Your task to perform on an android device: change alarm snooze length Image 0: 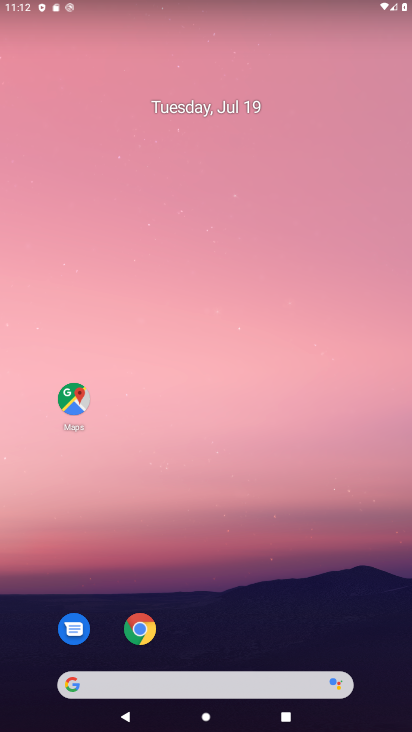
Step 0: drag from (255, 527) to (222, 151)
Your task to perform on an android device: change alarm snooze length Image 1: 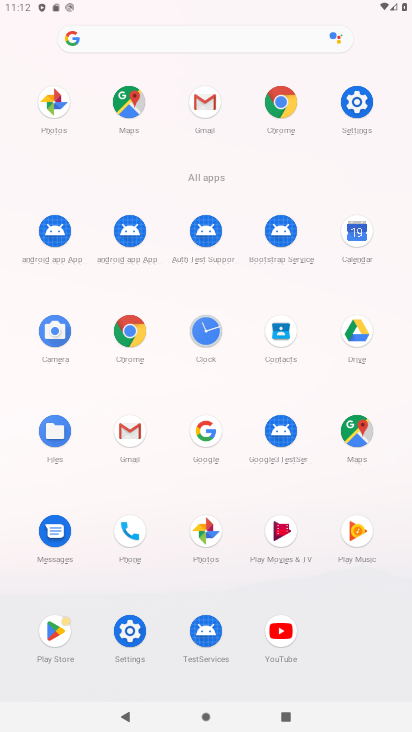
Step 1: click (355, 100)
Your task to perform on an android device: change alarm snooze length Image 2: 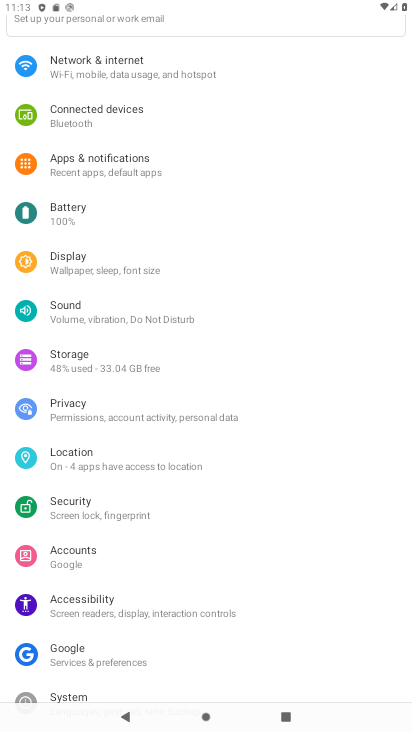
Step 2: press home button
Your task to perform on an android device: change alarm snooze length Image 3: 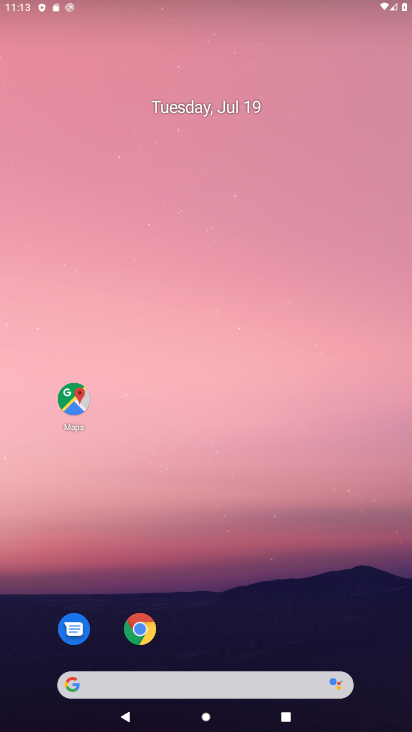
Step 3: drag from (338, 560) to (316, 89)
Your task to perform on an android device: change alarm snooze length Image 4: 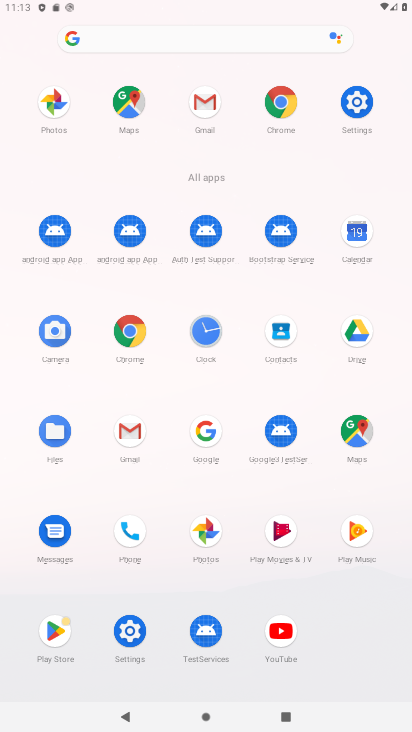
Step 4: click (200, 321)
Your task to perform on an android device: change alarm snooze length Image 5: 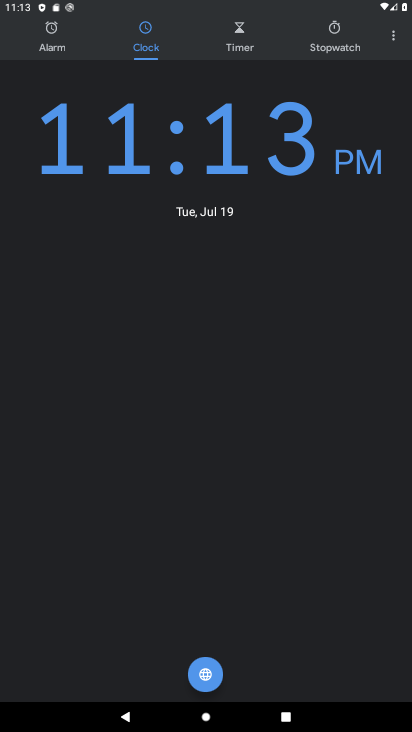
Step 5: click (393, 46)
Your task to perform on an android device: change alarm snooze length Image 6: 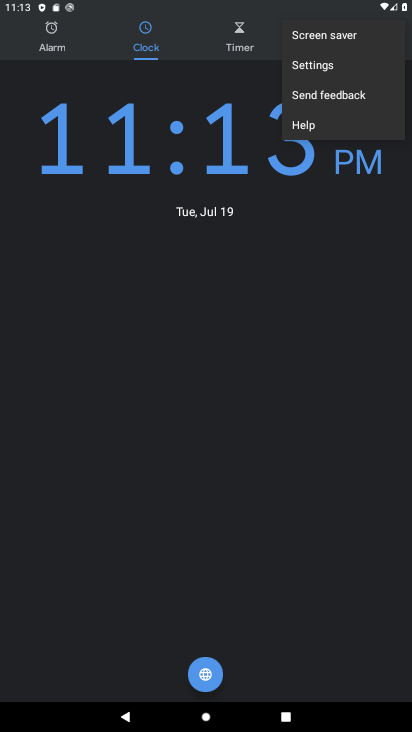
Step 6: click (347, 68)
Your task to perform on an android device: change alarm snooze length Image 7: 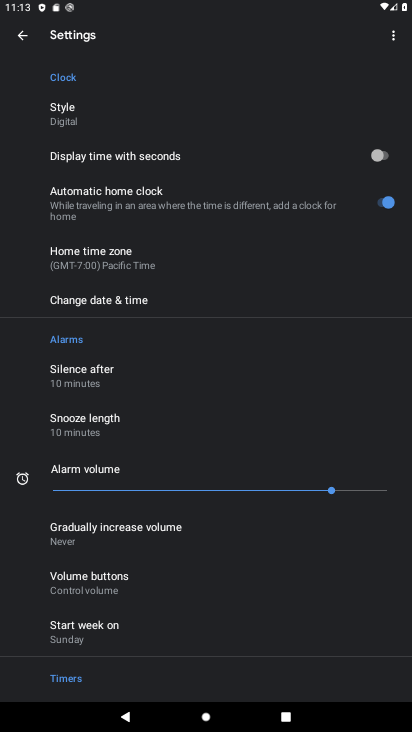
Step 7: drag from (268, 466) to (308, 147)
Your task to perform on an android device: change alarm snooze length Image 8: 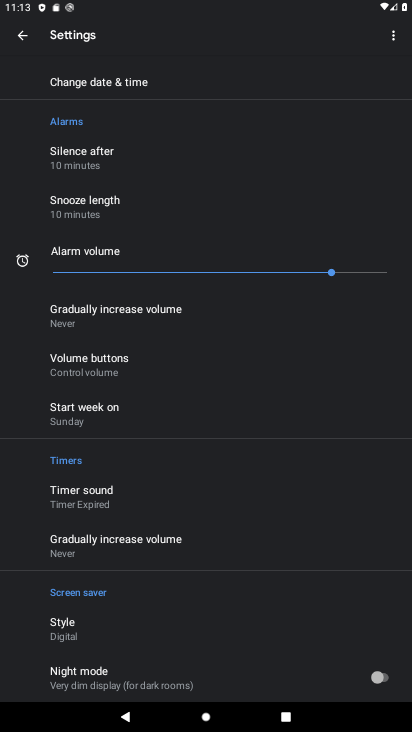
Step 8: drag from (218, 418) to (314, 172)
Your task to perform on an android device: change alarm snooze length Image 9: 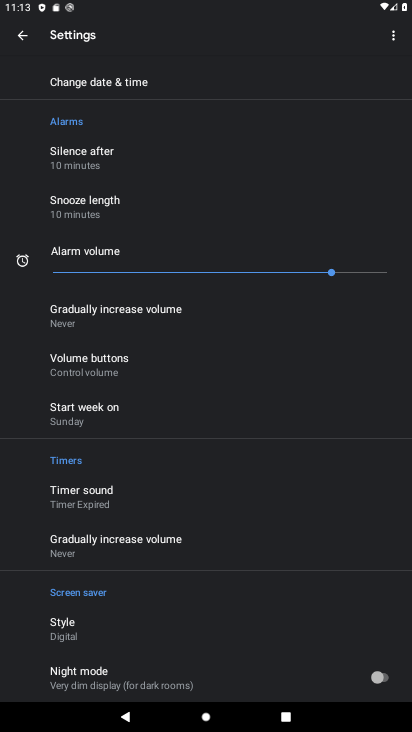
Step 9: drag from (242, 479) to (278, 299)
Your task to perform on an android device: change alarm snooze length Image 10: 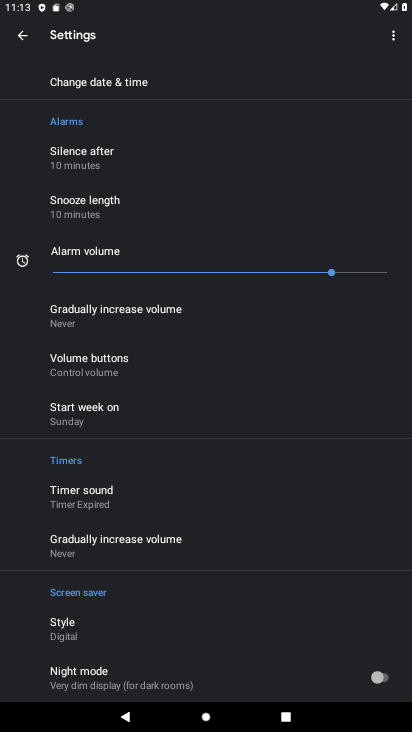
Step 10: drag from (263, 581) to (245, 234)
Your task to perform on an android device: change alarm snooze length Image 11: 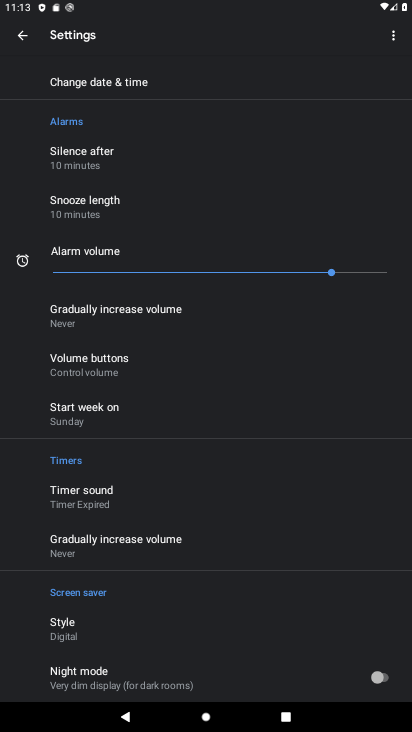
Step 11: drag from (232, 145) to (212, 620)
Your task to perform on an android device: change alarm snooze length Image 12: 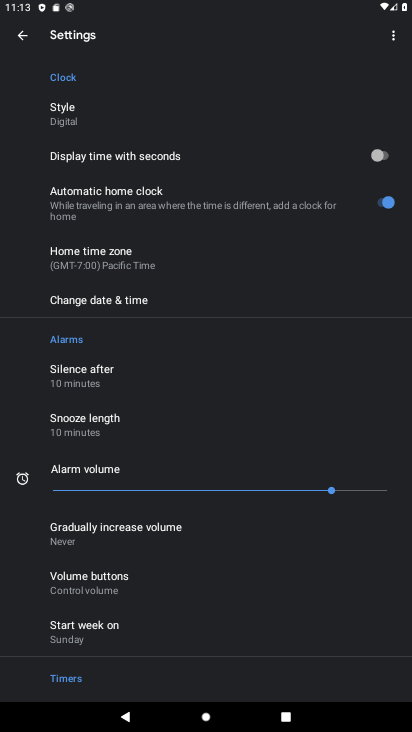
Step 12: drag from (211, 582) to (213, 392)
Your task to perform on an android device: change alarm snooze length Image 13: 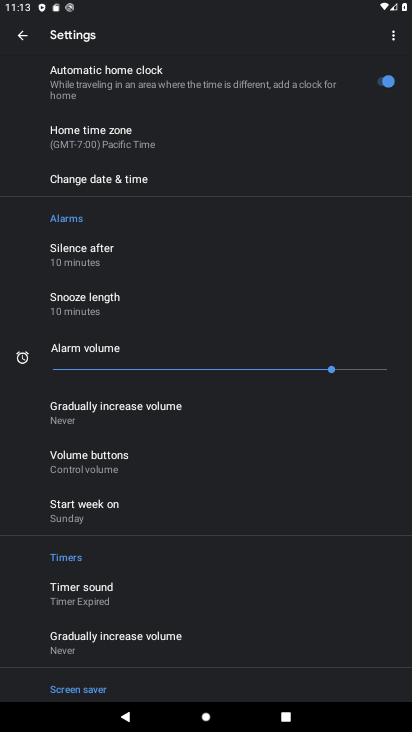
Step 13: click (79, 287)
Your task to perform on an android device: change alarm snooze length Image 14: 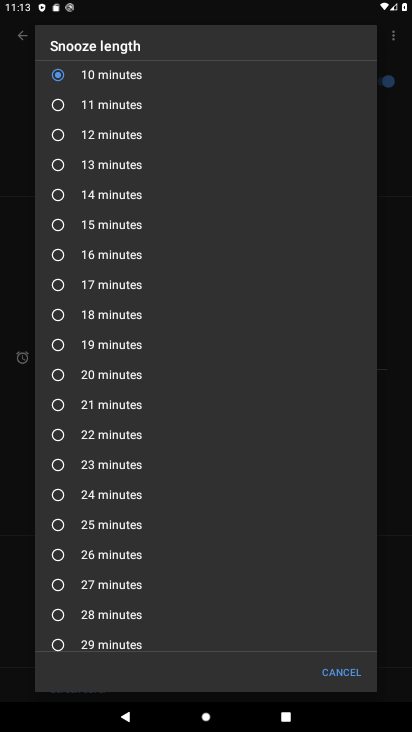
Step 14: click (100, 118)
Your task to perform on an android device: change alarm snooze length Image 15: 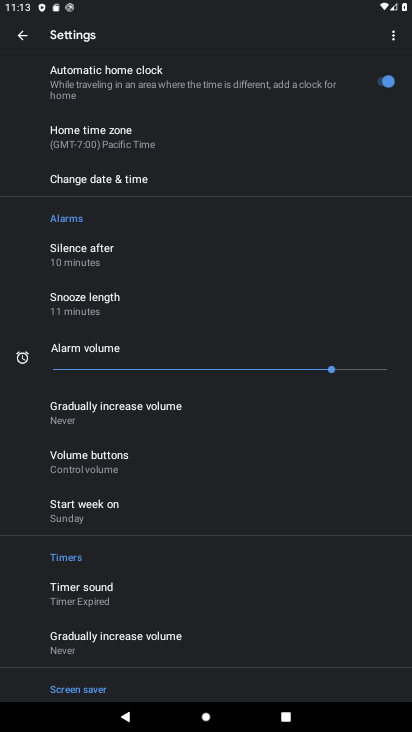
Step 15: task complete